Your task to perform on an android device: toggle notifications settings in the gmail app Image 0: 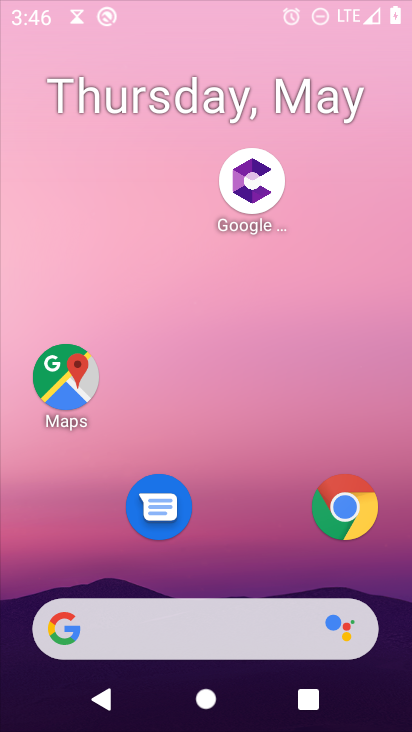
Step 0: press home button
Your task to perform on an android device: toggle notifications settings in the gmail app Image 1: 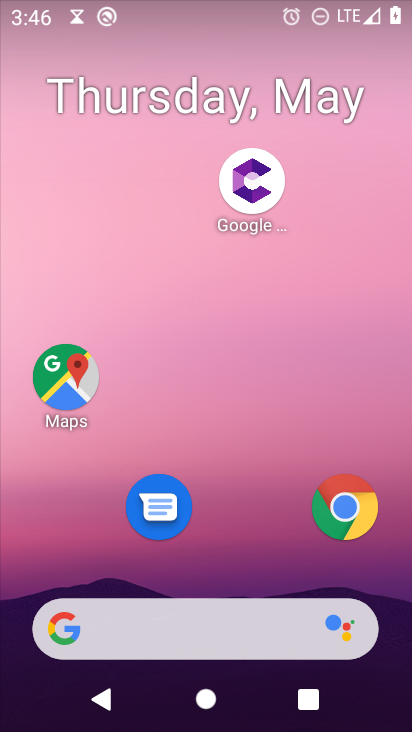
Step 1: drag from (304, 578) to (282, 203)
Your task to perform on an android device: toggle notifications settings in the gmail app Image 2: 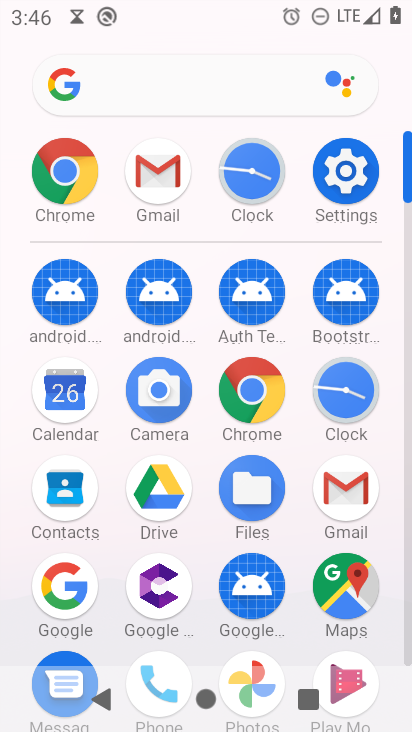
Step 2: click (158, 176)
Your task to perform on an android device: toggle notifications settings in the gmail app Image 3: 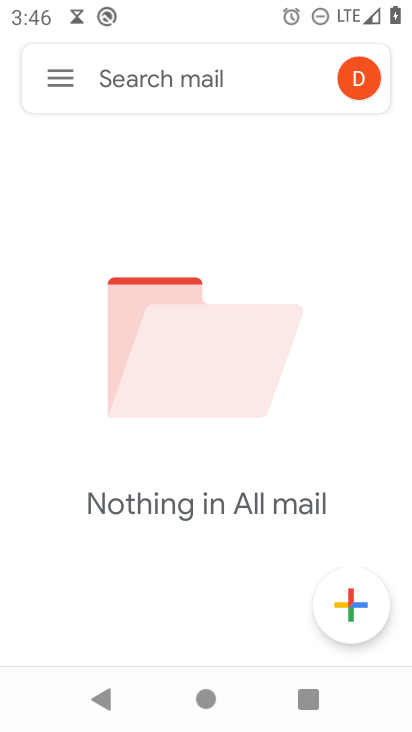
Step 3: click (51, 93)
Your task to perform on an android device: toggle notifications settings in the gmail app Image 4: 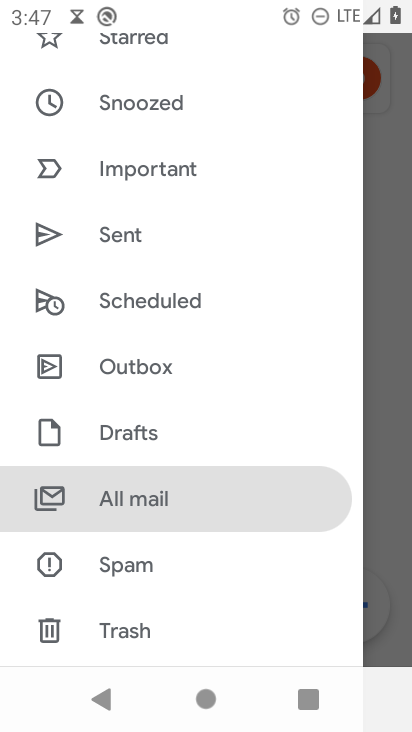
Step 4: drag from (226, 123) to (221, 591)
Your task to perform on an android device: toggle notifications settings in the gmail app Image 5: 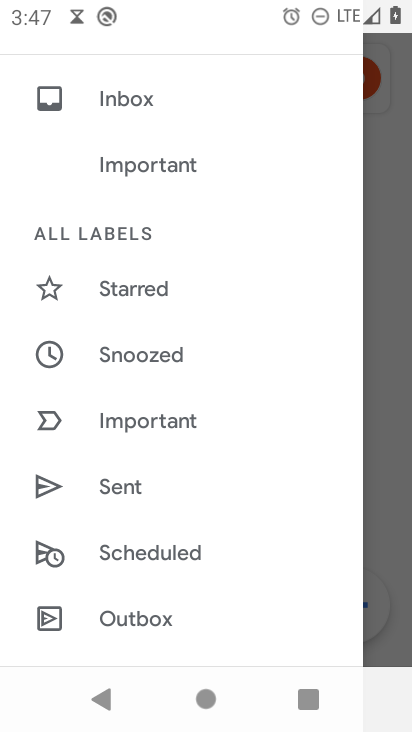
Step 5: drag from (234, 482) to (219, 70)
Your task to perform on an android device: toggle notifications settings in the gmail app Image 6: 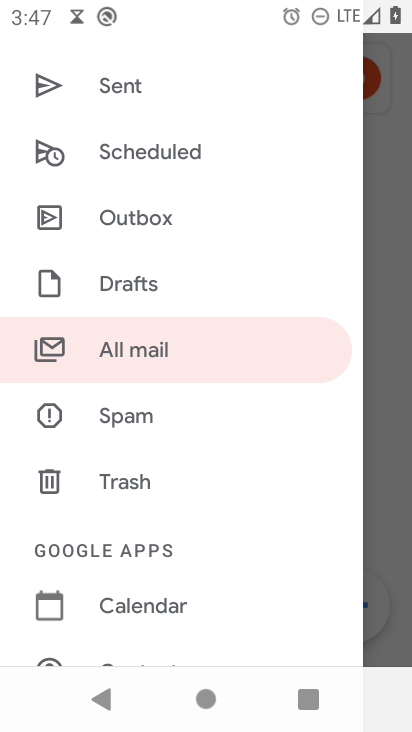
Step 6: drag from (267, 568) to (303, 142)
Your task to perform on an android device: toggle notifications settings in the gmail app Image 7: 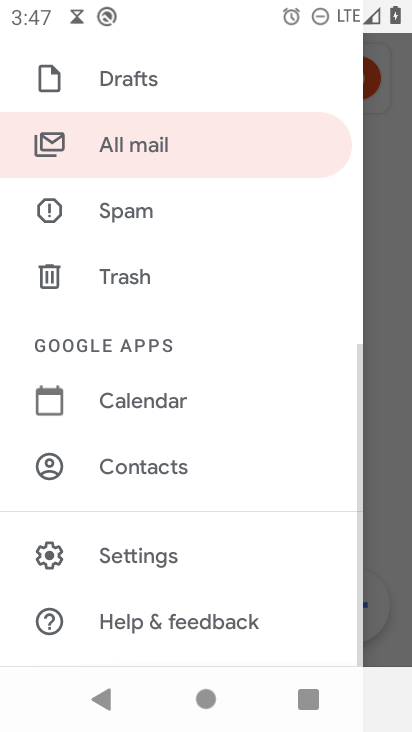
Step 7: click (139, 556)
Your task to perform on an android device: toggle notifications settings in the gmail app Image 8: 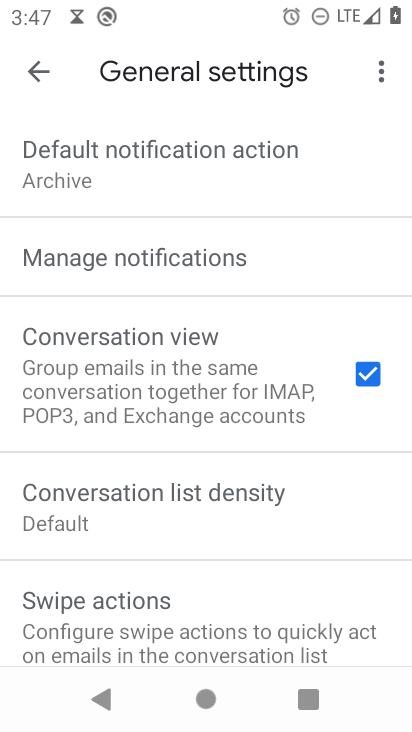
Step 8: click (140, 256)
Your task to perform on an android device: toggle notifications settings in the gmail app Image 9: 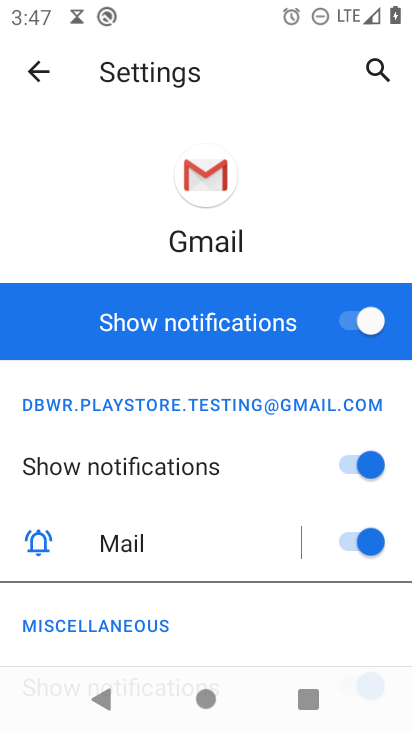
Step 9: click (380, 322)
Your task to perform on an android device: toggle notifications settings in the gmail app Image 10: 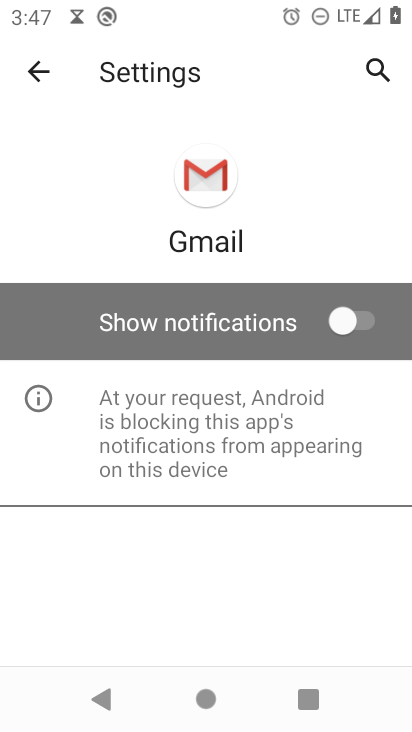
Step 10: task complete